Your task to perform on an android device: Open Reddit.com Image 0: 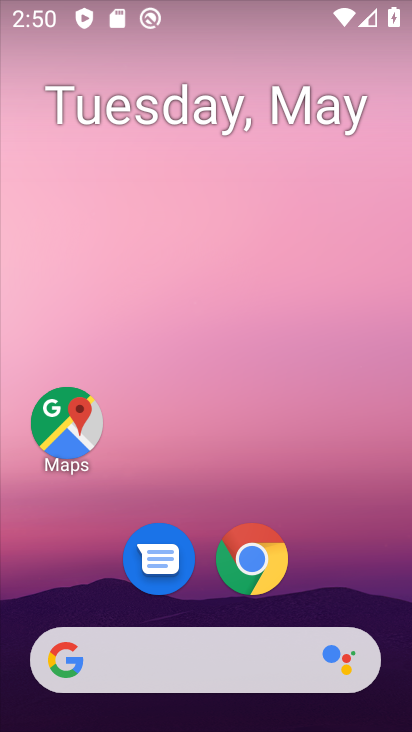
Step 0: drag from (183, 626) to (357, 97)
Your task to perform on an android device: Open Reddit.com Image 1: 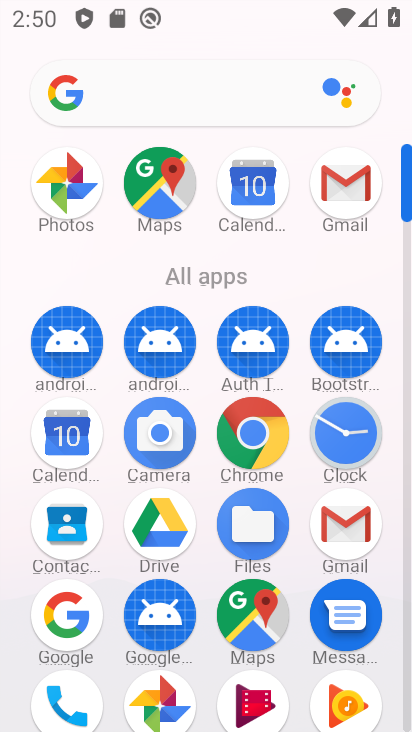
Step 1: drag from (222, 596) to (333, 360)
Your task to perform on an android device: Open Reddit.com Image 2: 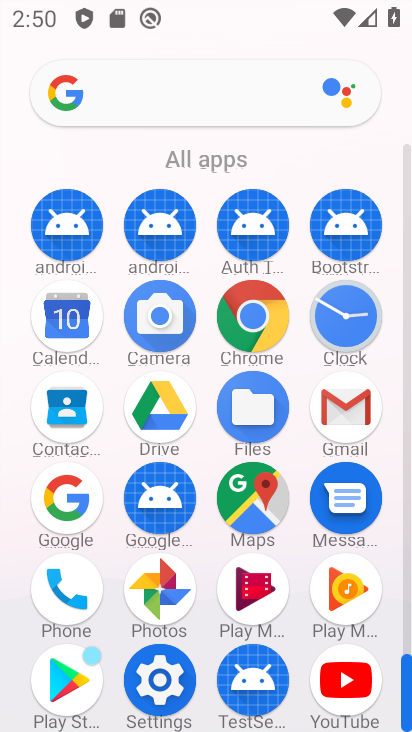
Step 2: click (76, 513)
Your task to perform on an android device: Open Reddit.com Image 3: 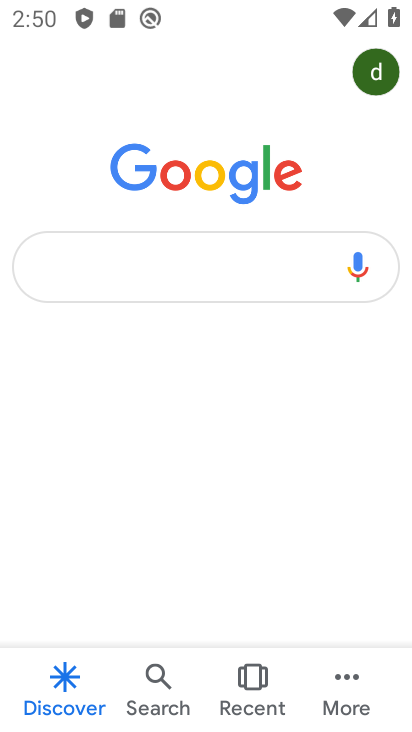
Step 3: click (196, 288)
Your task to perform on an android device: Open Reddit.com Image 4: 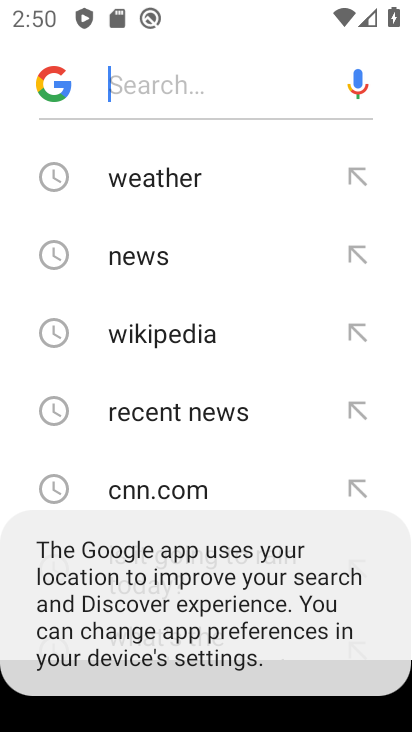
Step 4: click (153, 87)
Your task to perform on an android device: Open Reddit.com Image 5: 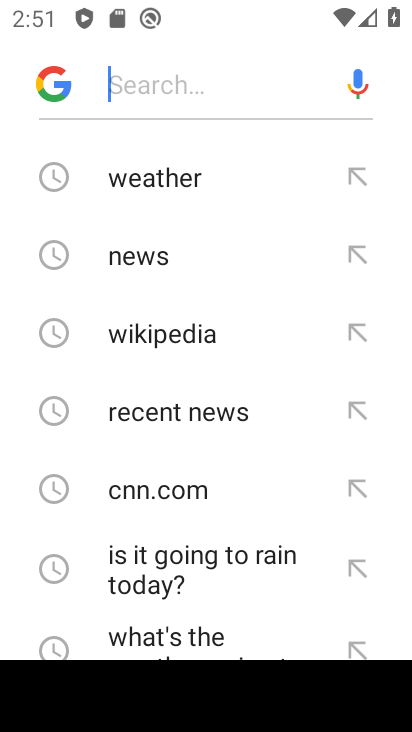
Step 5: type "Reddit.com "
Your task to perform on an android device: Open Reddit.com Image 6: 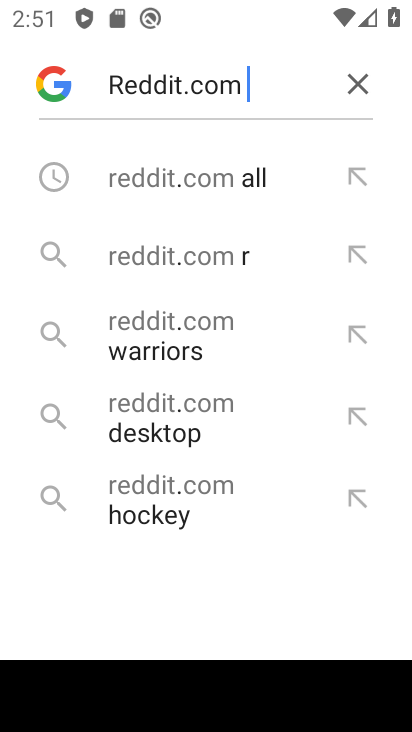
Step 6: click (188, 190)
Your task to perform on an android device: Open Reddit.com Image 7: 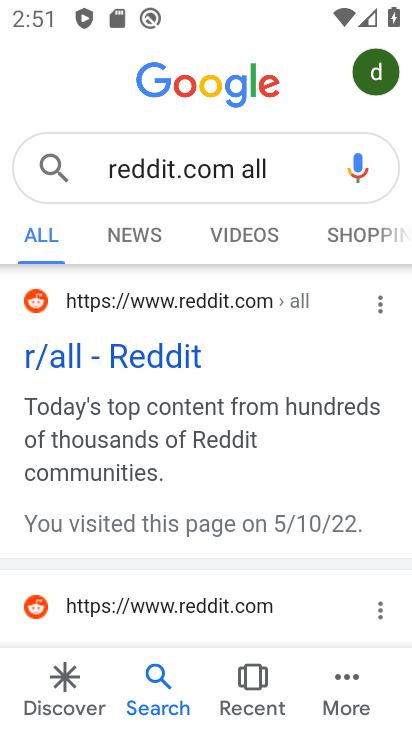
Step 7: drag from (142, 633) to (256, 374)
Your task to perform on an android device: Open Reddit.com Image 8: 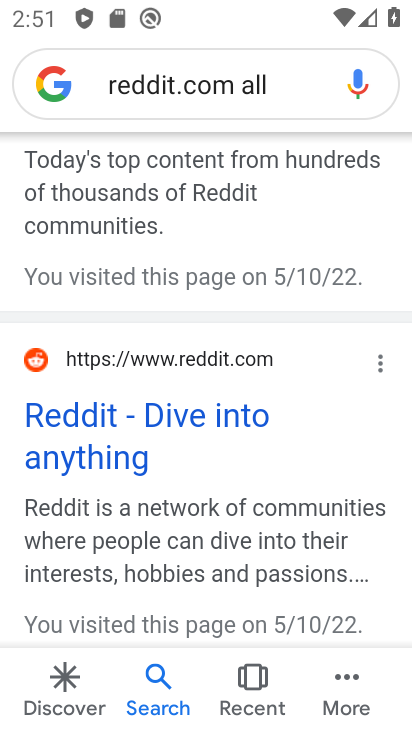
Step 8: drag from (140, 178) to (112, 414)
Your task to perform on an android device: Open Reddit.com Image 9: 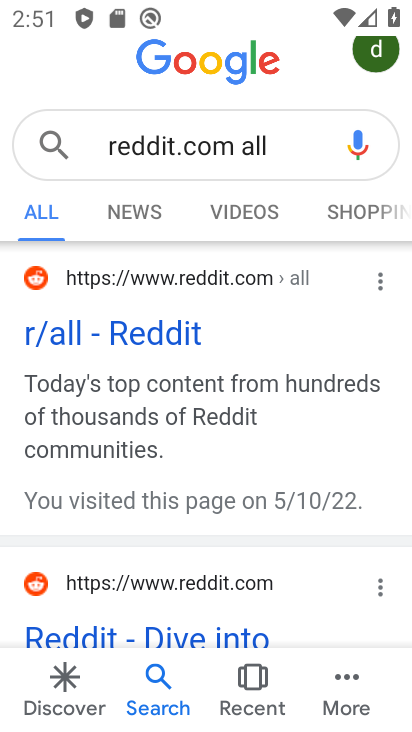
Step 9: click (139, 336)
Your task to perform on an android device: Open Reddit.com Image 10: 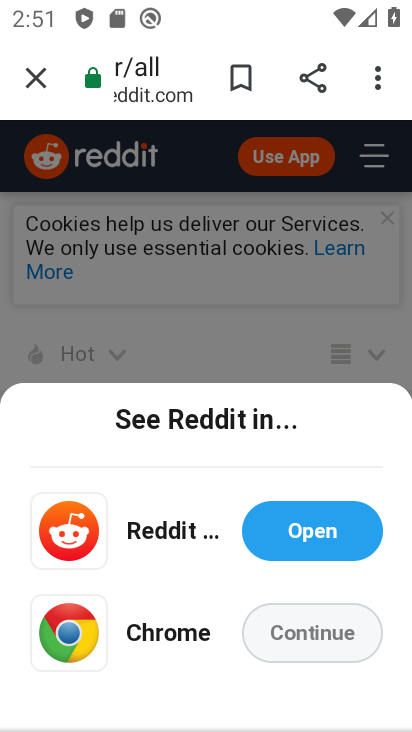
Step 10: click (321, 631)
Your task to perform on an android device: Open Reddit.com Image 11: 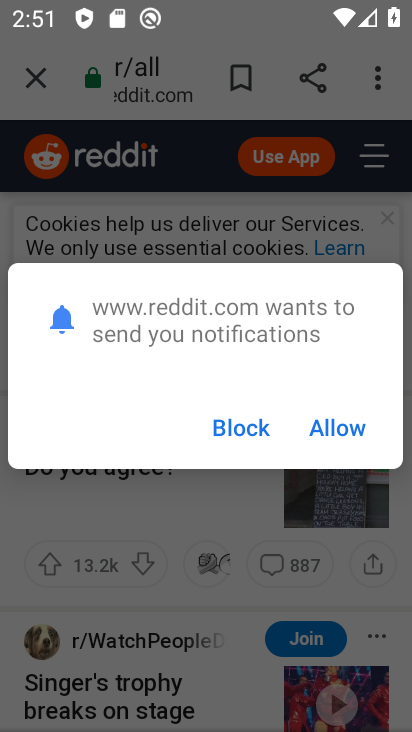
Step 11: click (348, 414)
Your task to perform on an android device: Open Reddit.com Image 12: 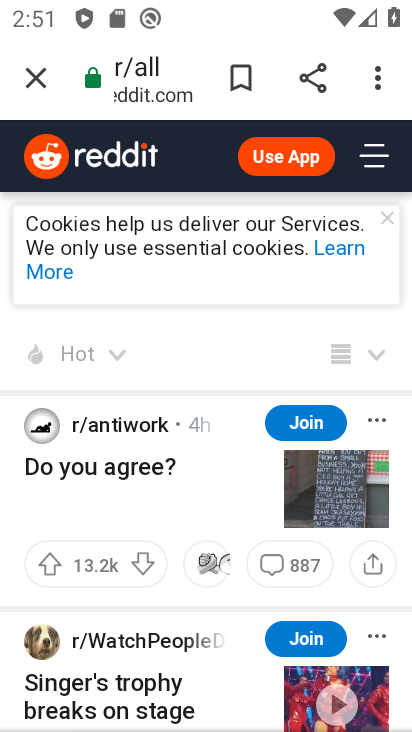
Step 12: task complete